Your task to perform on an android device: toggle location history Image 0: 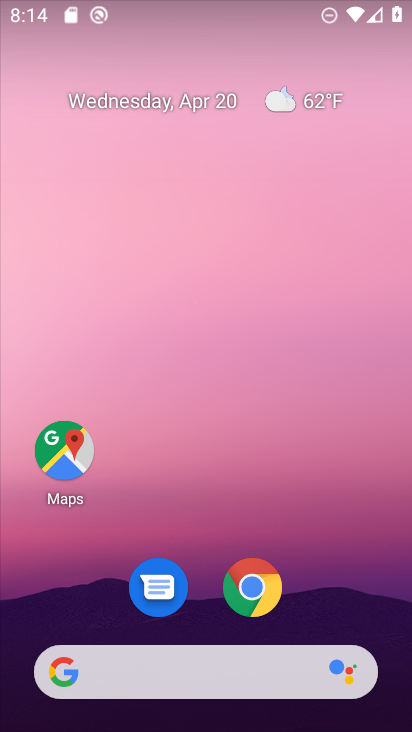
Step 0: drag from (408, 520) to (209, 24)
Your task to perform on an android device: toggle location history Image 1: 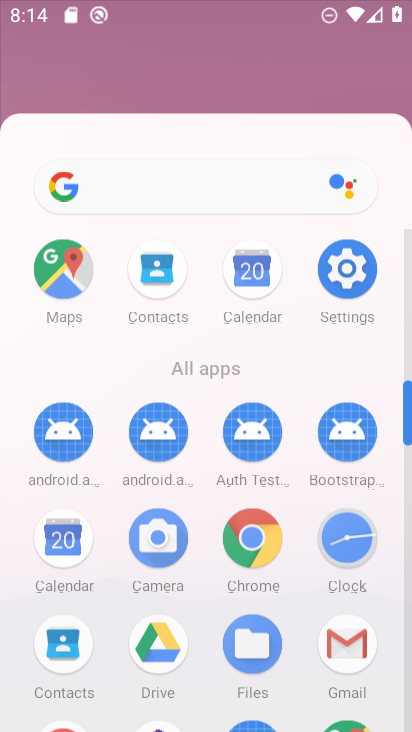
Step 1: click (211, 29)
Your task to perform on an android device: toggle location history Image 2: 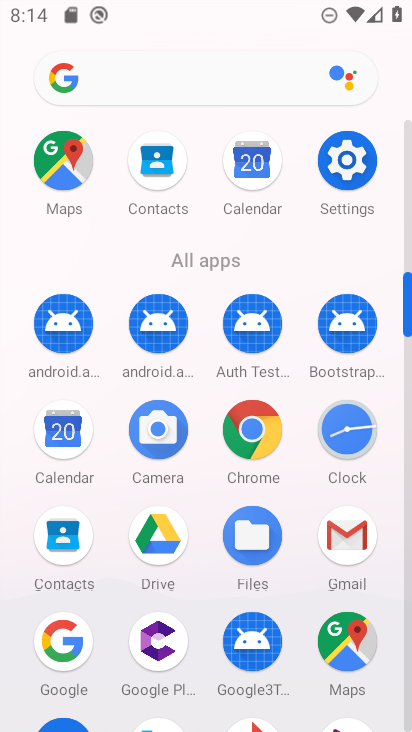
Step 2: click (352, 182)
Your task to perform on an android device: toggle location history Image 3: 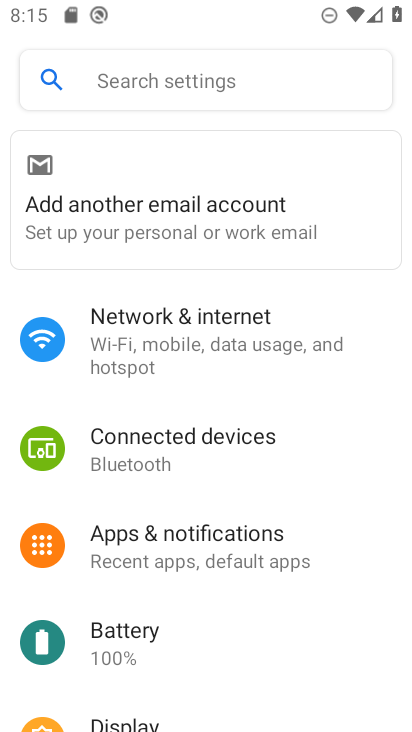
Step 3: drag from (268, 536) to (238, 51)
Your task to perform on an android device: toggle location history Image 4: 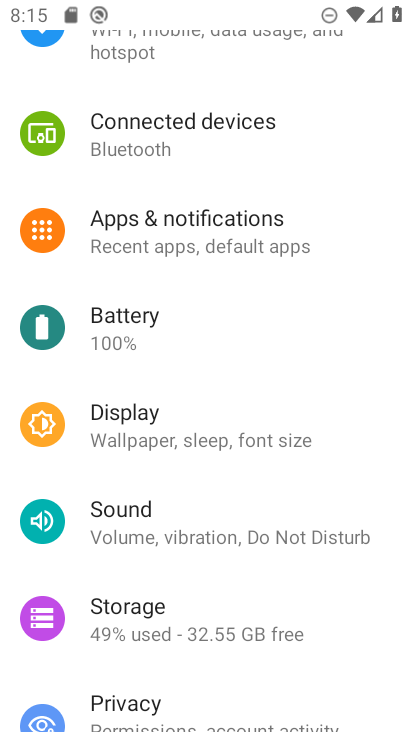
Step 4: drag from (213, 661) to (234, 170)
Your task to perform on an android device: toggle location history Image 5: 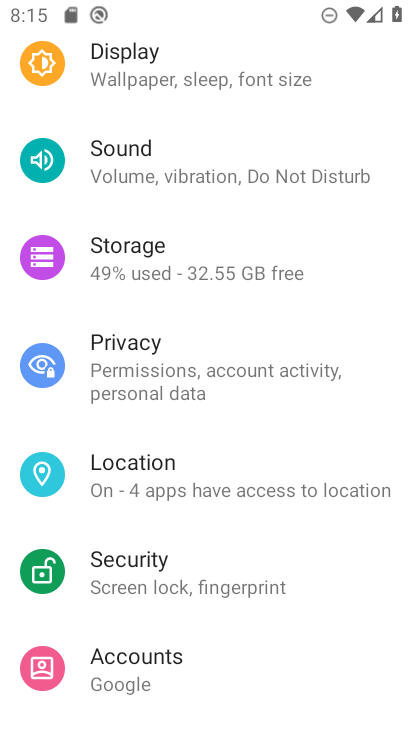
Step 5: click (207, 482)
Your task to perform on an android device: toggle location history Image 6: 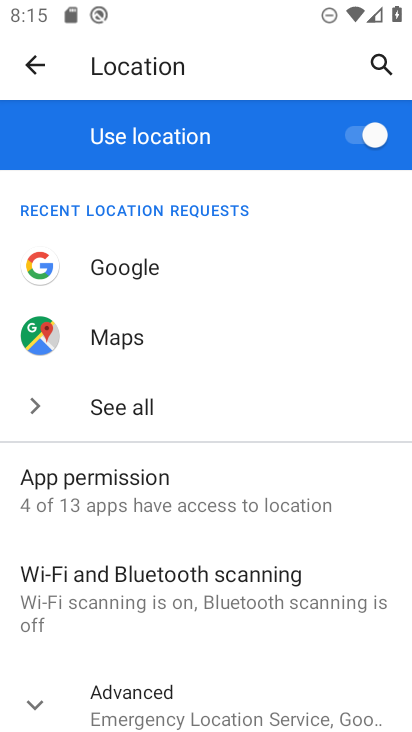
Step 6: click (217, 679)
Your task to perform on an android device: toggle location history Image 7: 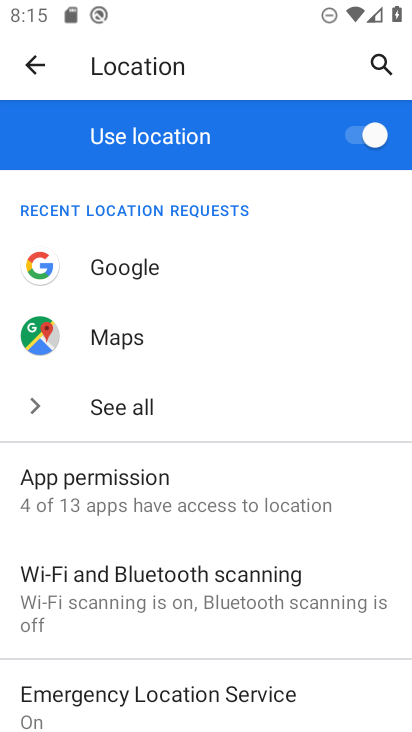
Step 7: drag from (202, 633) to (134, 177)
Your task to perform on an android device: toggle location history Image 8: 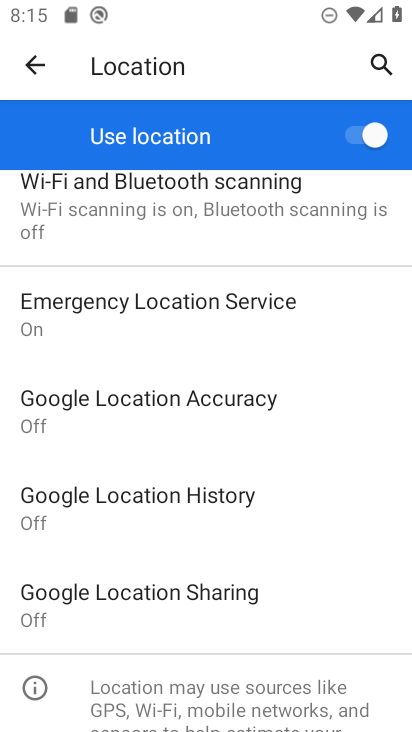
Step 8: click (219, 500)
Your task to perform on an android device: toggle location history Image 9: 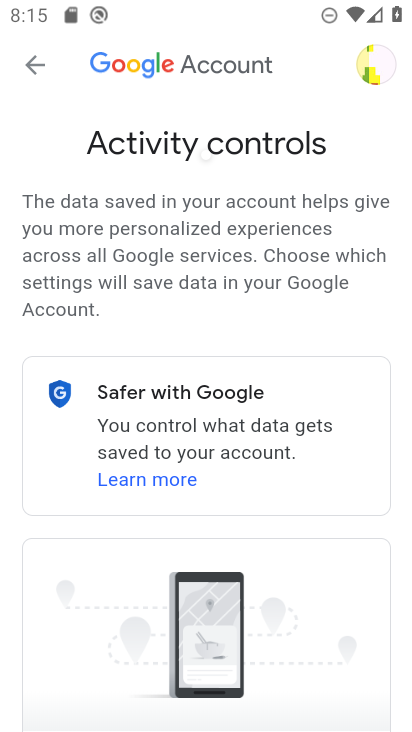
Step 9: drag from (274, 627) to (265, 234)
Your task to perform on an android device: toggle location history Image 10: 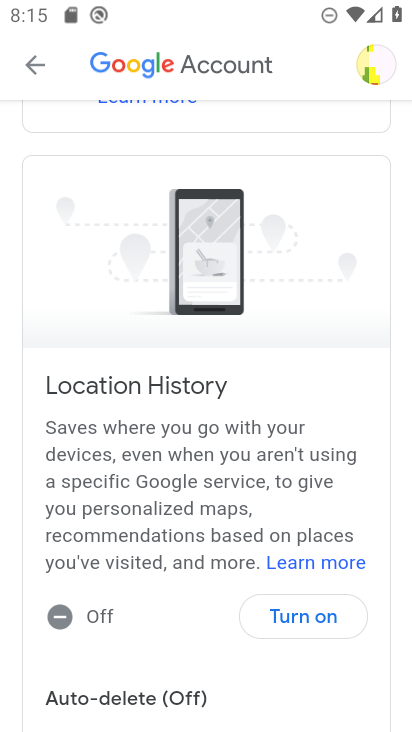
Step 10: click (308, 617)
Your task to perform on an android device: toggle location history Image 11: 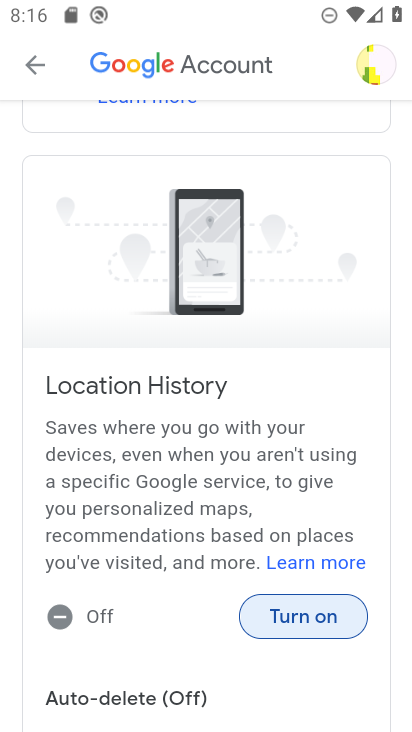
Step 11: click (296, 618)
Your task to perform on an android device: toggle location history Image 12: 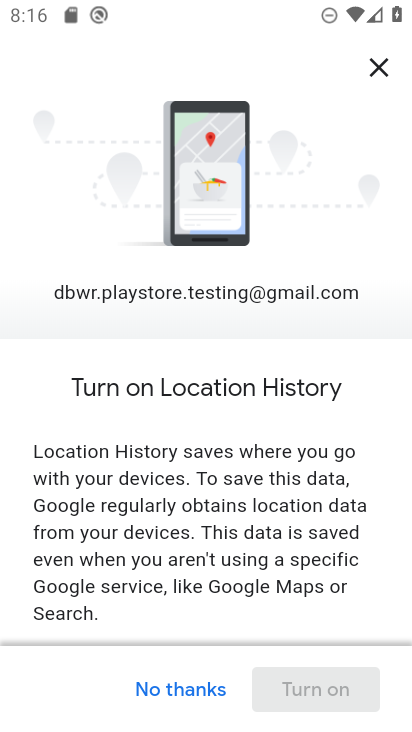
Step 12: drag from (305, 621) to (256, 105)
Your task to perform on an android device: toggle location history Image 13: 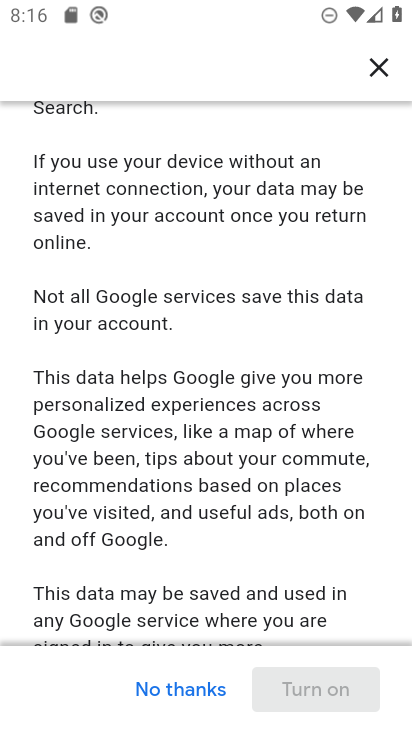
Step 13: drag from (297, 577) to (278, 44)
Your task to perform on an android device: toggle location history Image 14: 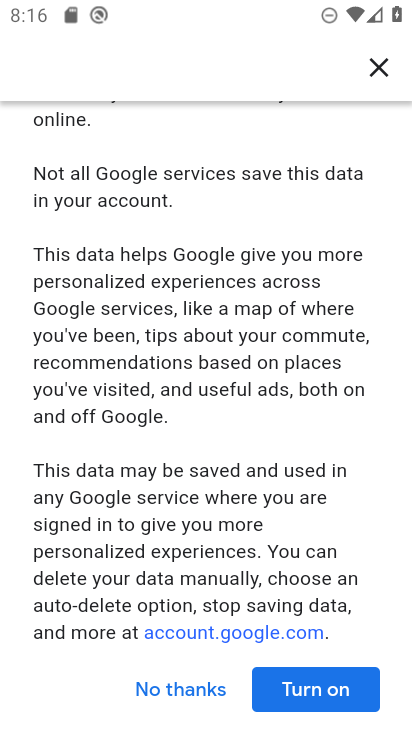
Step 14: click (312, 689)
Your task to perform on an android device: toggle location history Image 15: 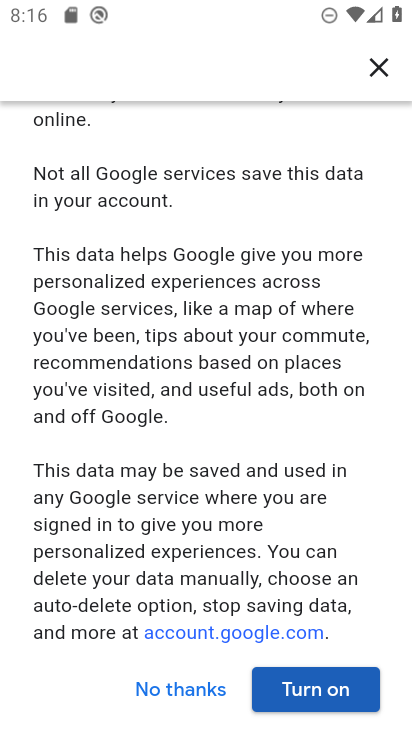
Step 15: click (318, 689)
Your task to perform on an android device: toggle location history Image 16: 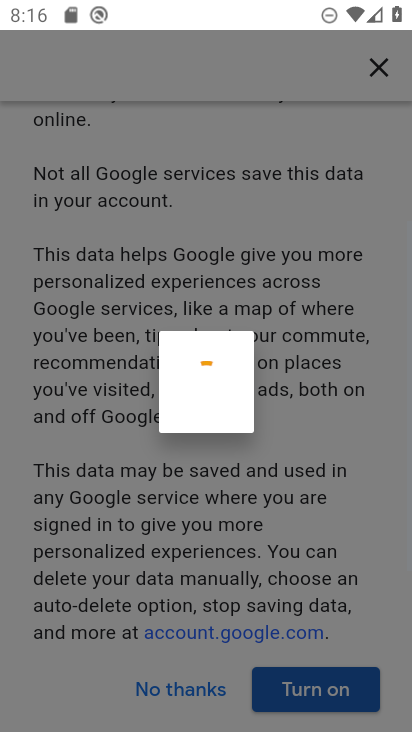
Step 16: click (314, 690)
Your task to perform on an android device: toggle location history Image 17: 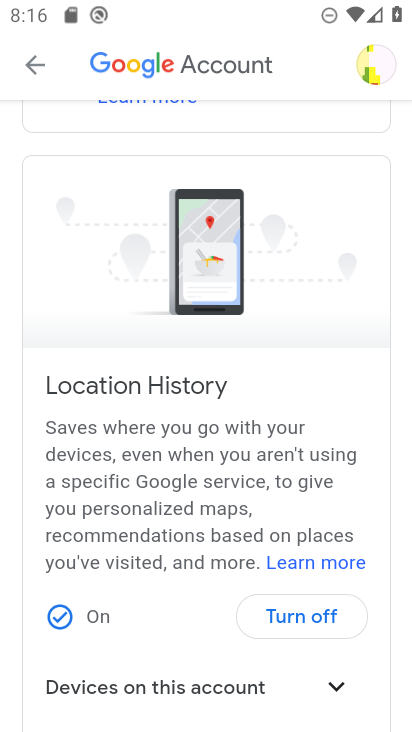
Step 17: task complete